Your task to perform on an android device: turn pop-ups off in chrome Image 0: 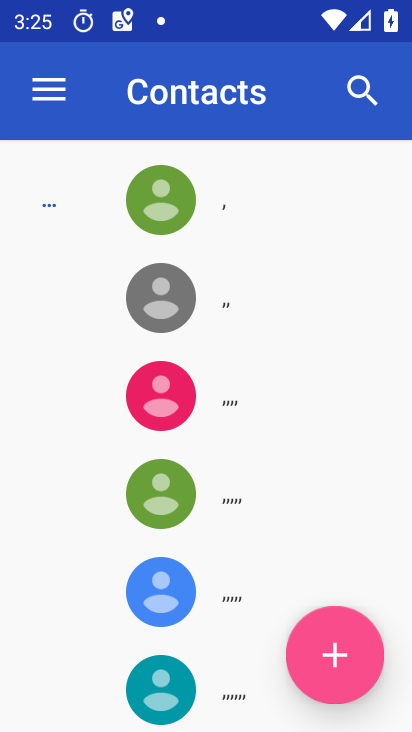
Step 0: press home button
Your task to perform on an android device: turn pop-ups off in chrome Image 1: 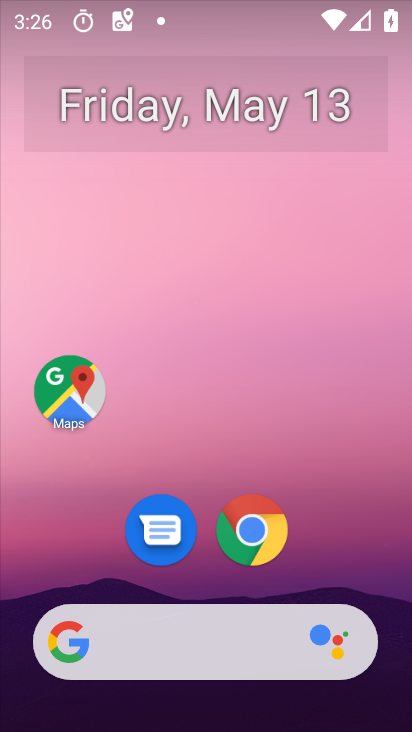
Step 1: click (257, 536)
Your task to perform on an android device: turn pop-ups off in chrome Image 2: 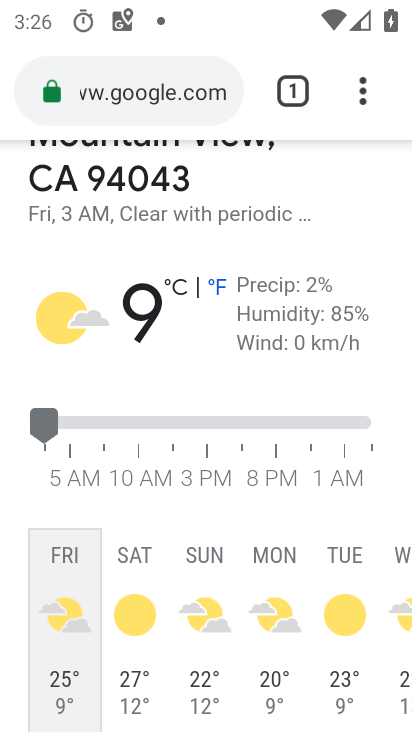
Step 2: drag from (357, 69) to (237, 562)
Your task to perform on an android device: turn pop-ups off in chrome Image 3: 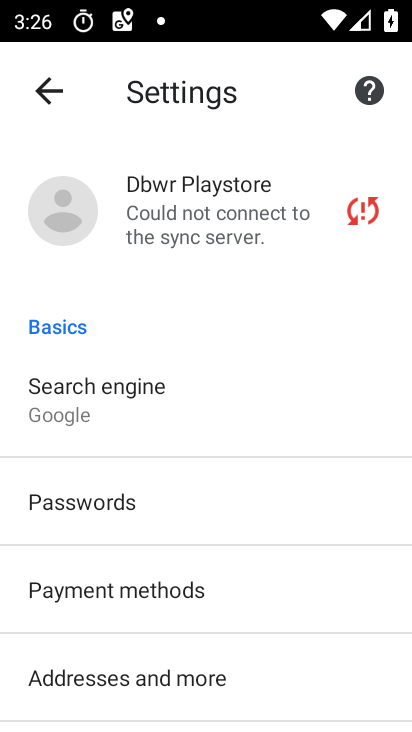
Step 3: drag from (308, 627) to (334, 139)
Your task to perform on an android device: turn pop-ups off in chrome Image 4: 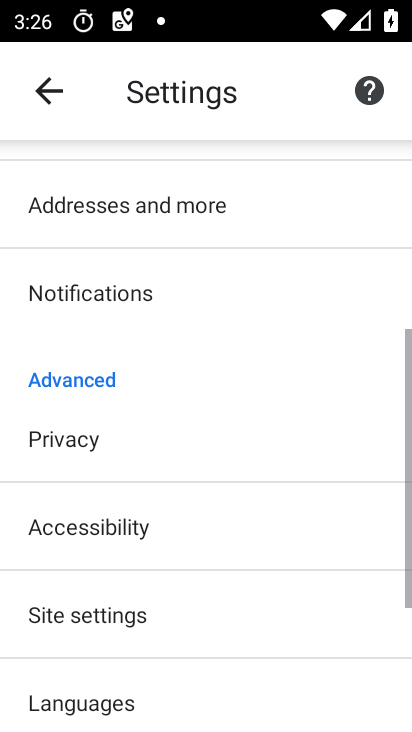
Step 4: drag from (271, 565) to (275, 255)
Your task to perform on an android device: turn pop-ups off in chrome Image 5: 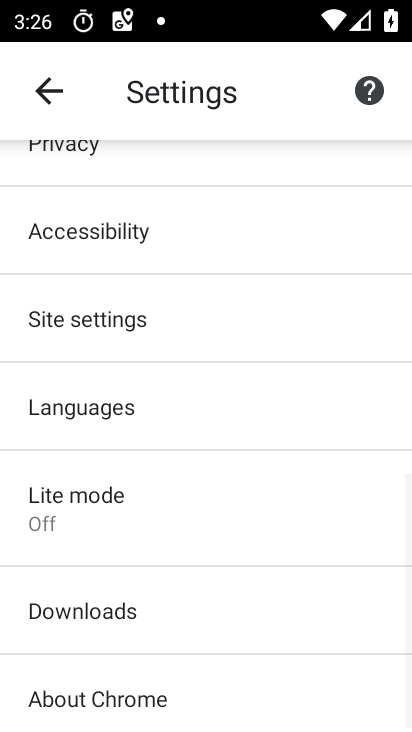
Step 5: drag from (142, 401) to (171, 282)
Your task to perform on an android device: turn pop-ups off in chrome Image 6: 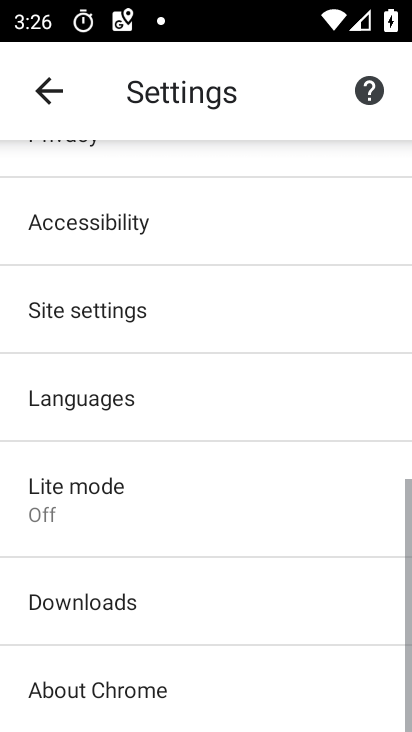
Step 6: click (109, 296)
Your task to perform on an android device: turn pop-ups off in chrome Image 7: 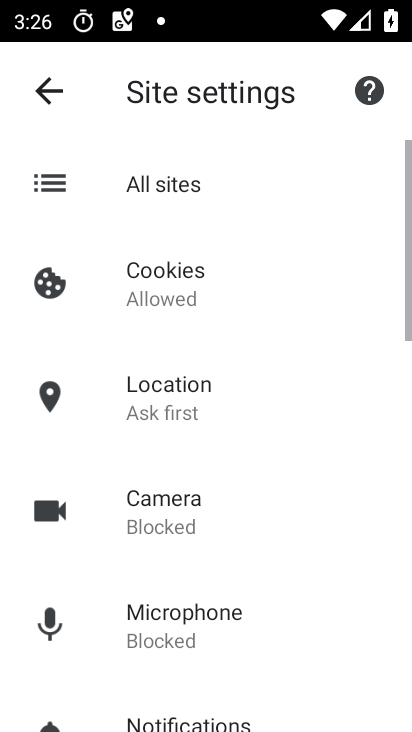
Step 7: drag from (292, 678) to (275, 264)
Your task to perform on an android device: turn pop-ups off in chrome Image 8: 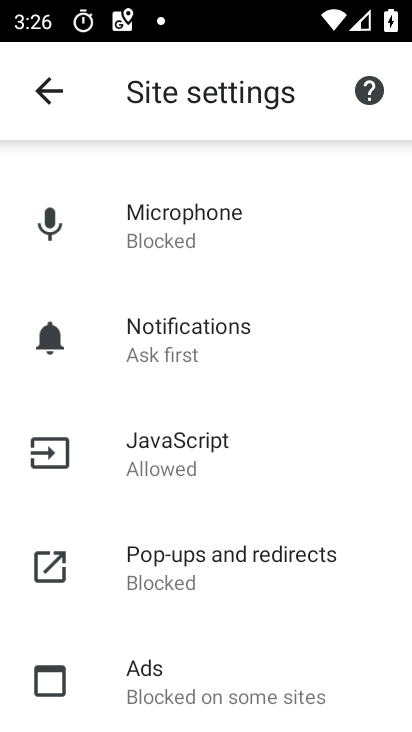
Step 8: click (245, 592)
Your task to perform on an android device: turn pop-ups off in chrome Image 9: 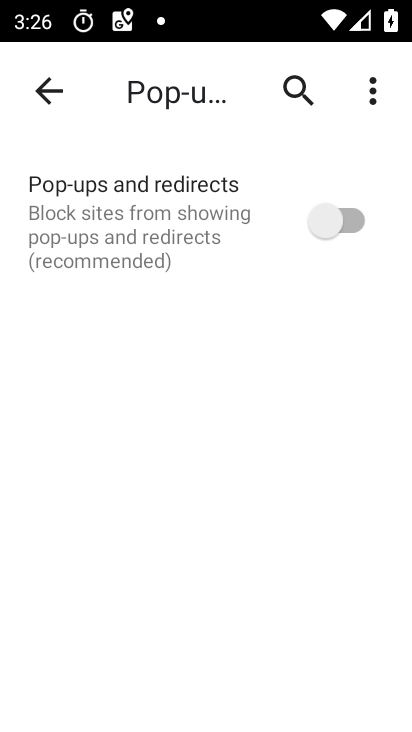
Step 9: task complete